Your task to perform on an android device: toggle notifications settings in the gmail app Image 0: 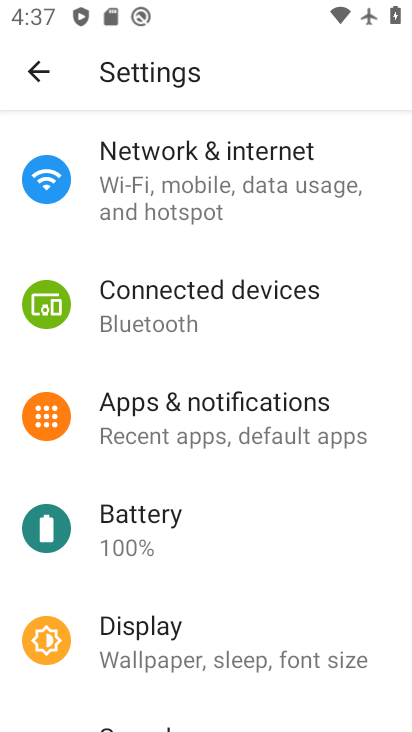
Step 0: press home button
Your task to perform on an android device: toggle notifications settings in the gmail app Image 1: 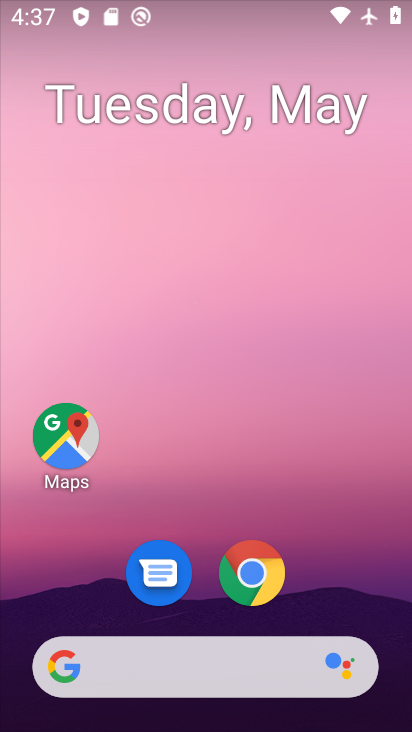
Step 1: drag from (305, 569) to (204, 163)
Your task to perform on an android device: toggle notifications settings in the gmail app Image 2: 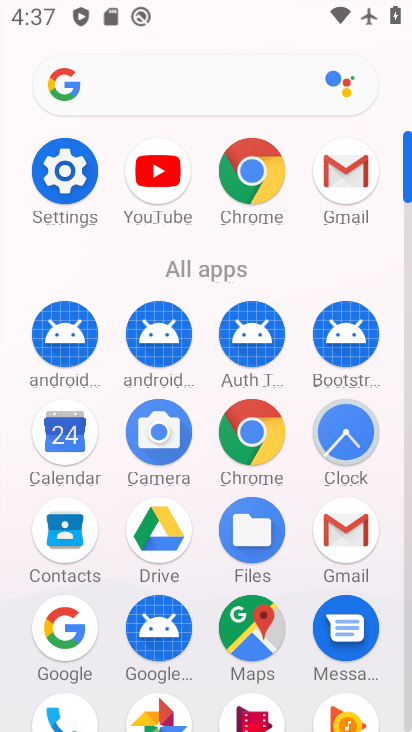
Step 2: click (350, 174)
Your task to perform on an android device: toggle notifications settings in the gmail app Image 3: 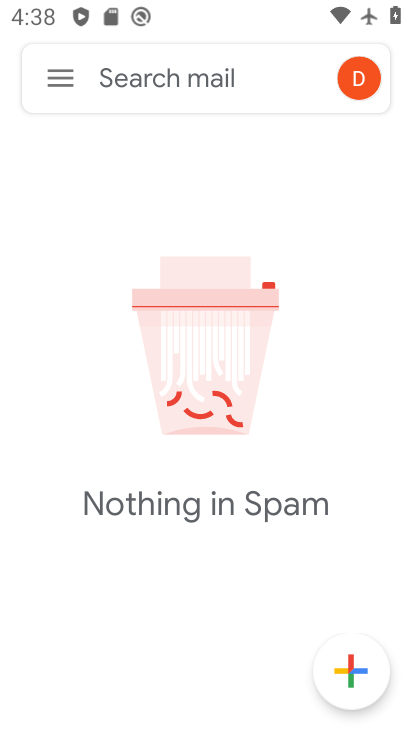
Step 3: click (66, 71)
Your task to perform on an android device: toggle notifications settings in the gmail app Image 4: 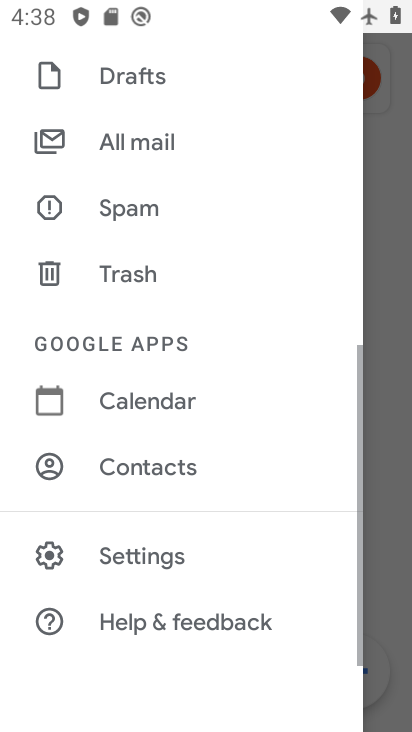
Step 4: drag from (120, 443) to (90, 74)
Your task to perform on an android device: toggle notifications settings in the gmail app Image 5: 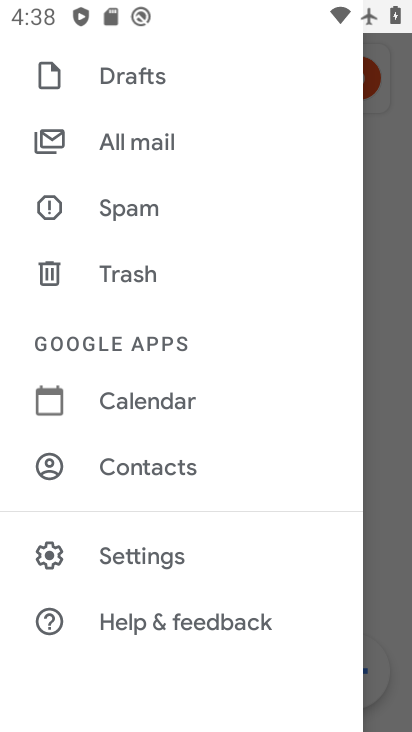
Step 5: click (163, 566)
Your task to perform on an android device: toggle notifications settings in the gmail app Image 6: 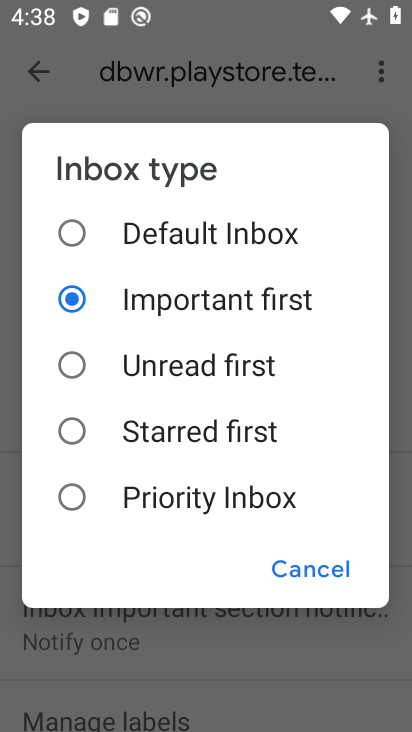
Step 6: click (303, 579)
Your task to perform on an android device: toggle notifications settings in the gmail app Image 7: 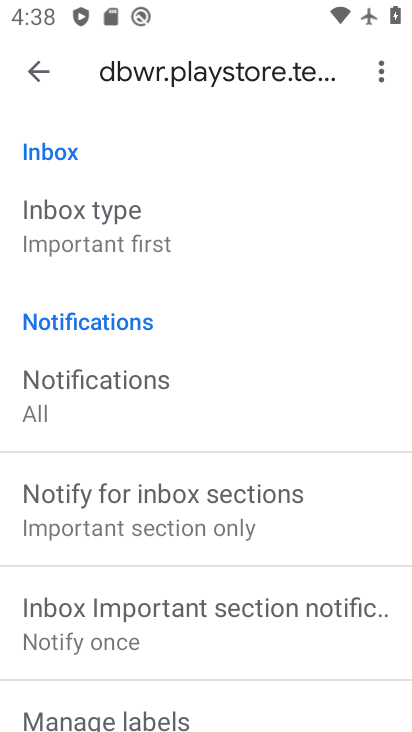
Step 7: drag from (186, 574) to (189, 313)
Your task to perform on an android device: toggle notifications settings in the gmail app Image 8: 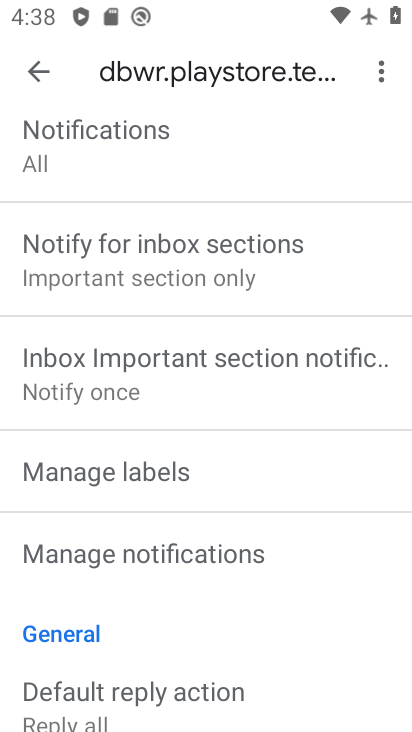
Step 8: click (114, 542)
Your task to perform on an android device: toggle notifications settings in the gmail app Image 9: 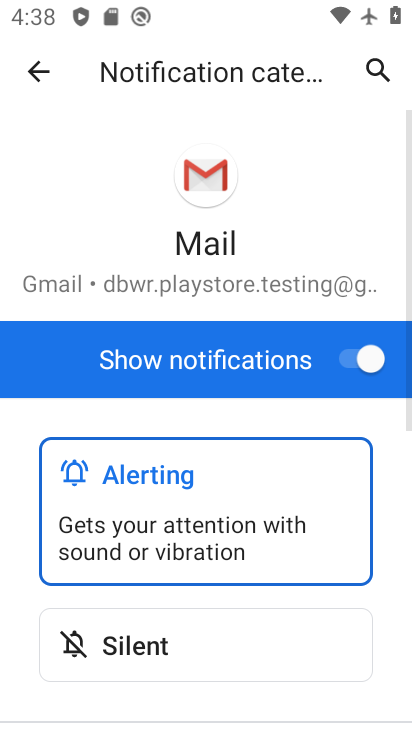
Step 9: click (347, 356)
Your task to perform on an android device: toggle notifications settings in the gmail app Image 10: 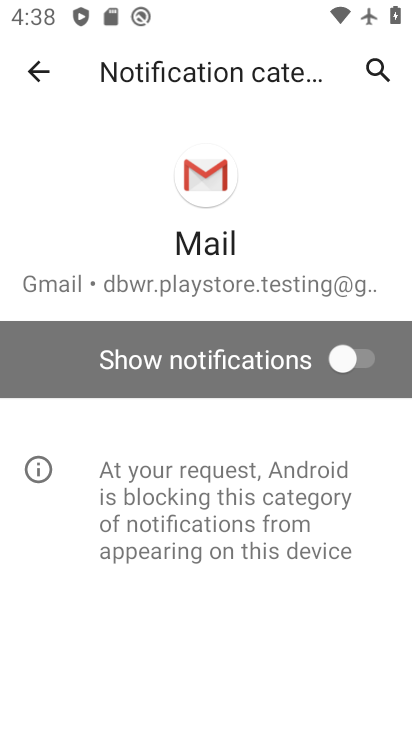
Step 10: task complete